Your task to perform on an android device: uninstall "Microsoft Authenticator" Image 0: 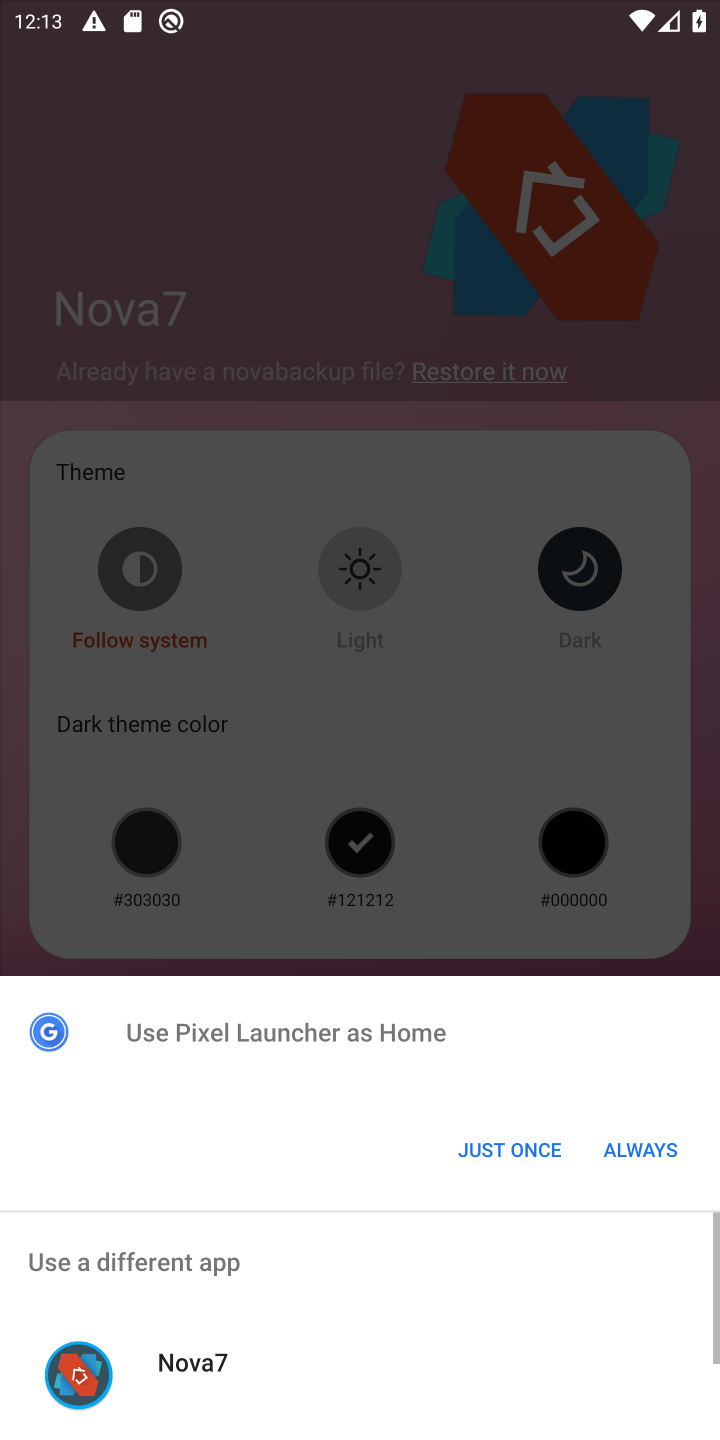
Step 0: press back button
Your task to perform on an android device: uninstall "Microsoft Authenticator" Image 1: 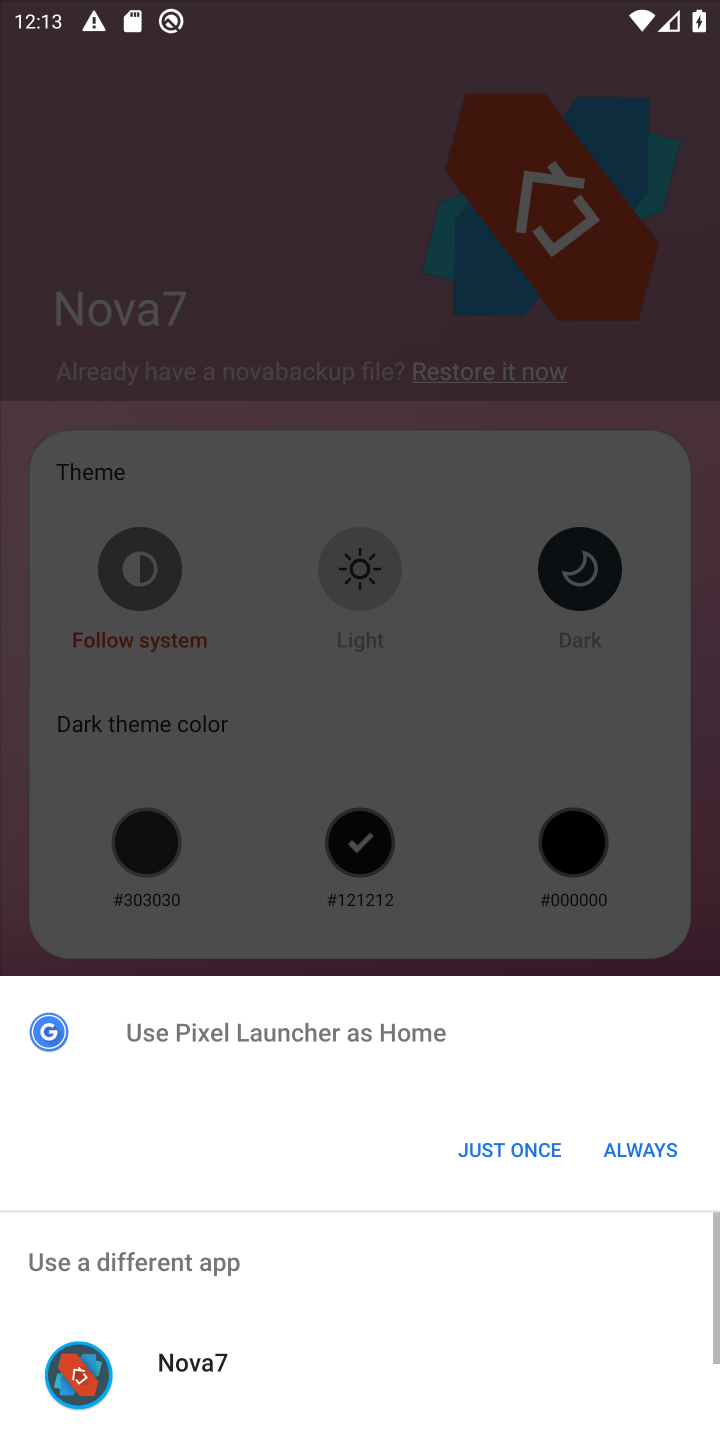
Step 1: press home button
Your task to perform on an android device: uninstall "Microsoft Authenticator" Image 2: 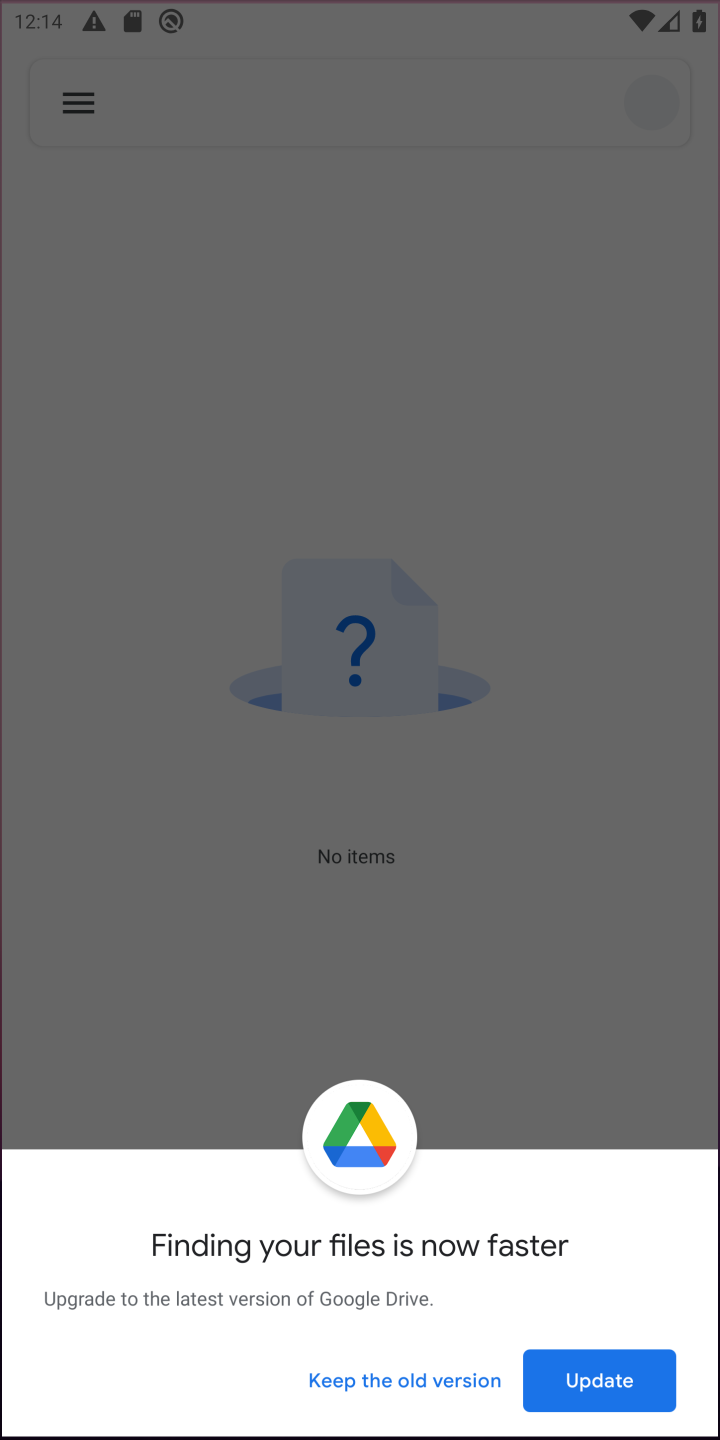
Step 2: press home button
Your task to perform on an android device: uninstall "Microsoft Authenticator" Image 3: 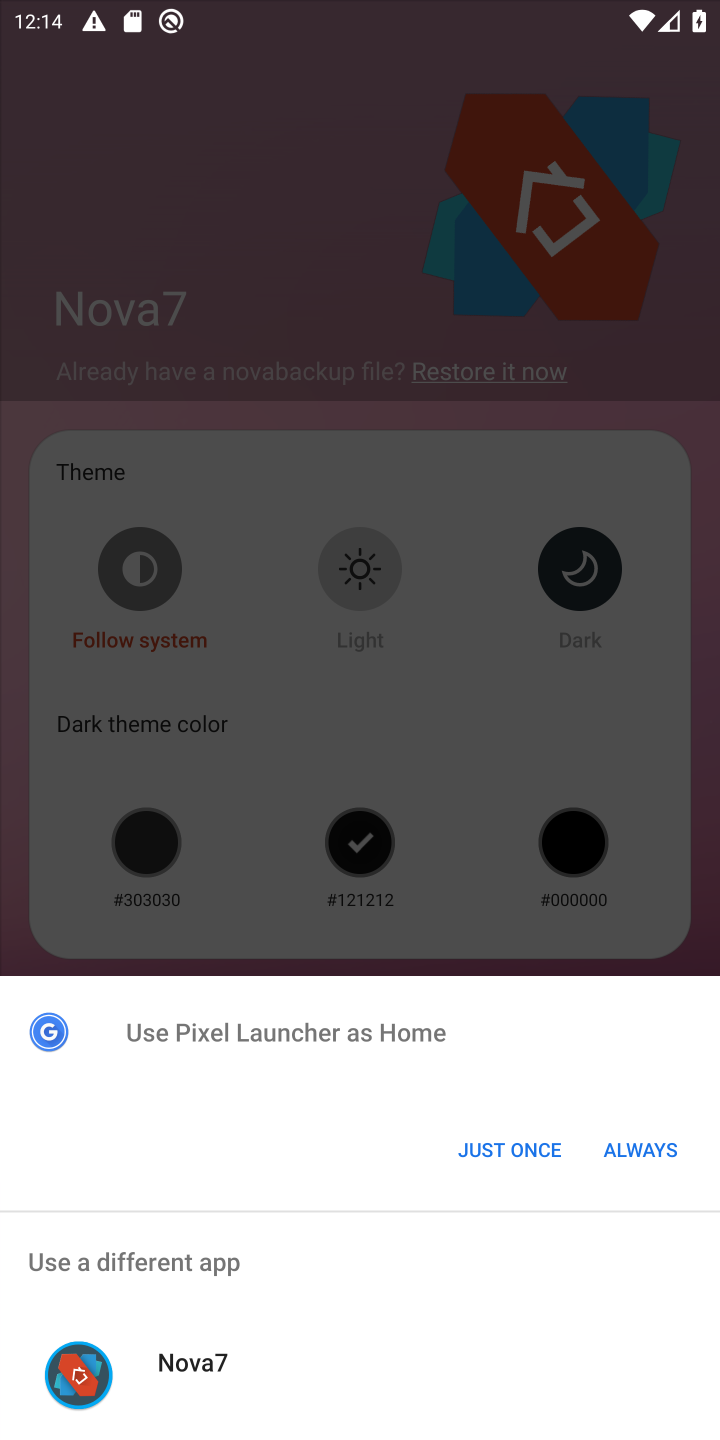
Step 3: press home button
Your task to perform on an android device: uninstall "Microsoft Authenticator" Image 4: 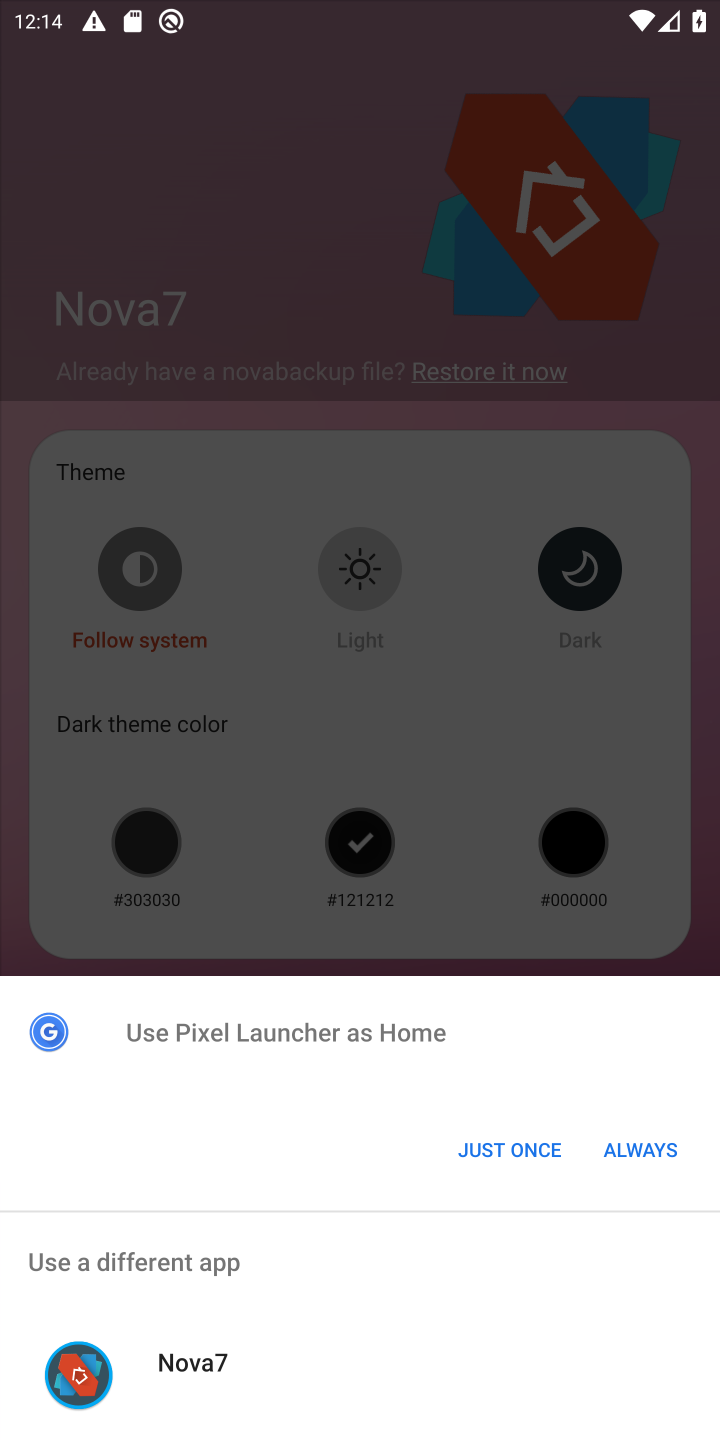
Step 4: click (517, 1138)
Your task to perform on an android device: uninstall "Microsoft Authenticator" Image 5: 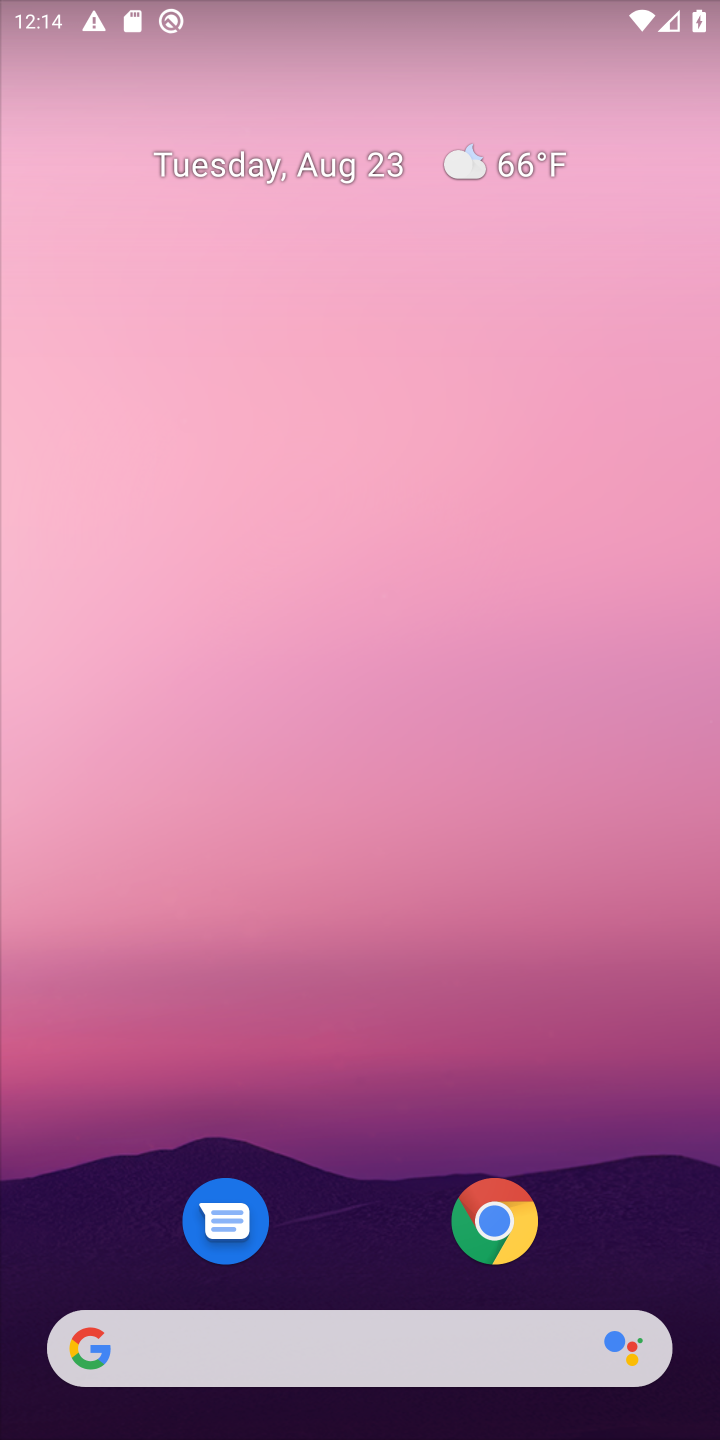
Step 5: click (644, 227)
Your task to perform on an android device: uninstall "Microsoft Authenticator" Image 6: 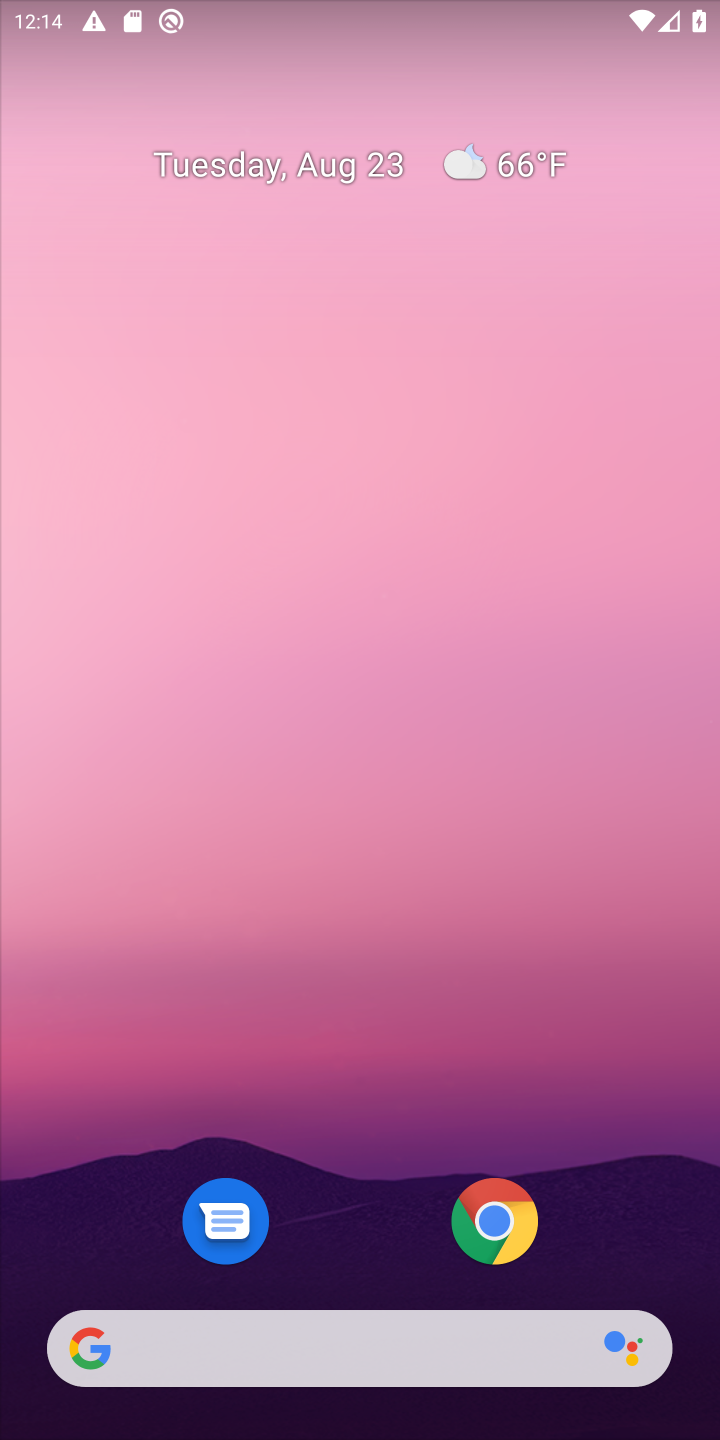
Step 6: drag from (395, 858) to (520, 94)
Your task to perform on an android device: uninstall "Microsoft Authenticator" Image 7: 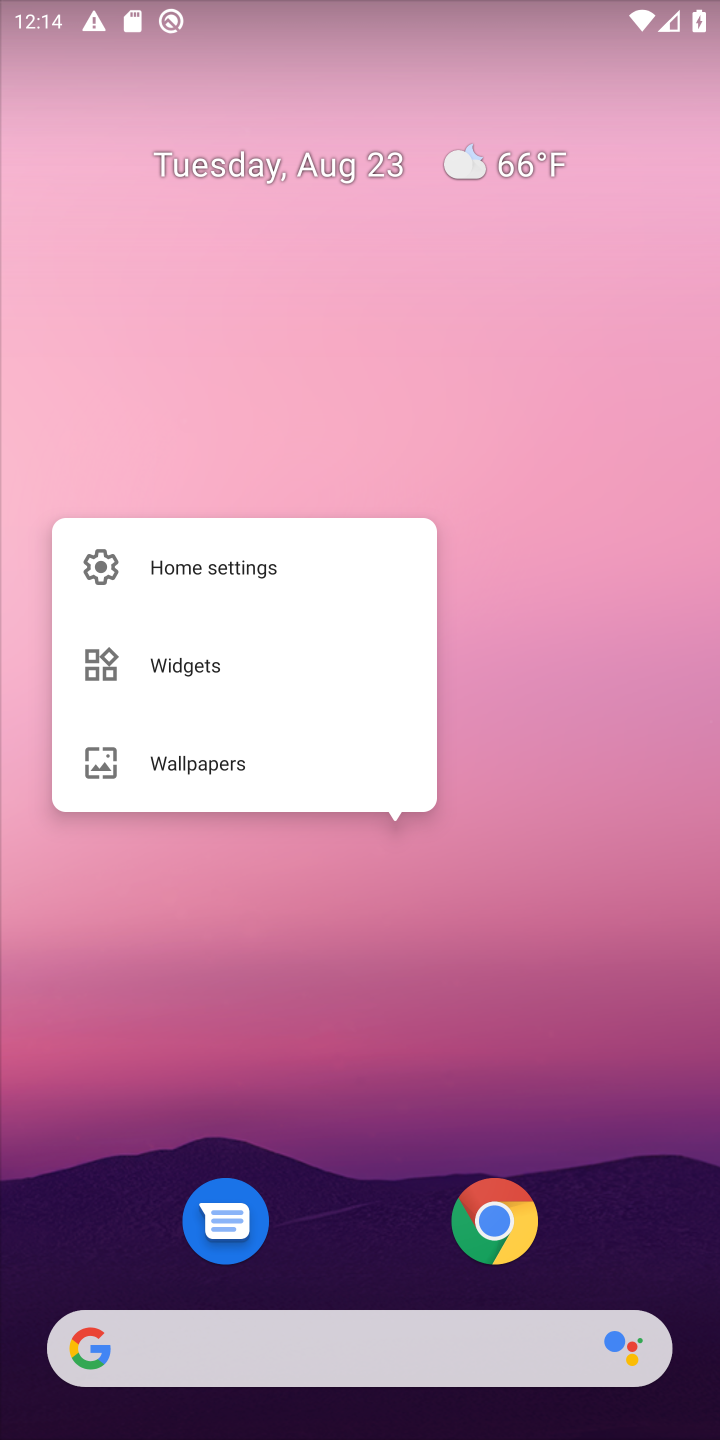
Step 7: click (474, 977)
Your task to perform on an android device: uninstall "Microsoft Authenticator" Image 8: 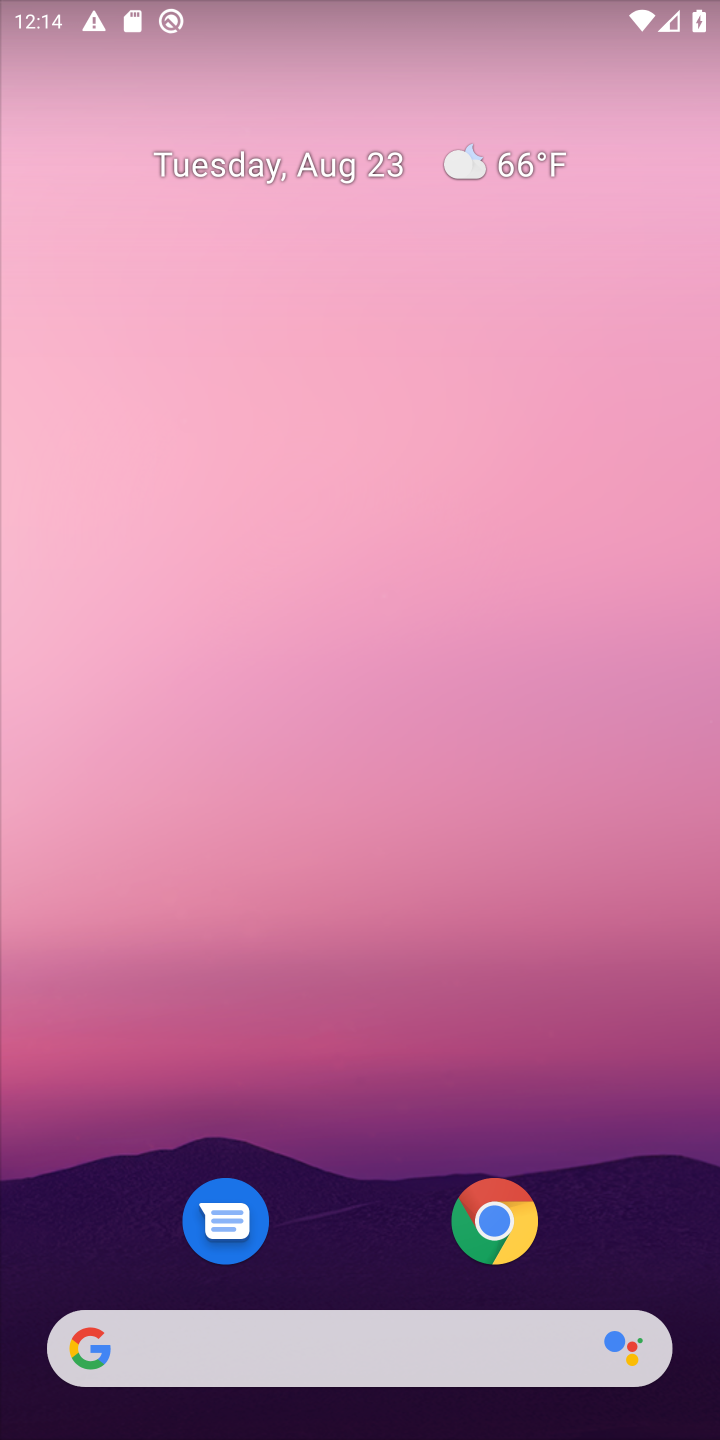
Step 8: drag from (475, 727) to (560, 45)
Your task to perform on an android device: uninstall "Microsoft Authenticator" Image 9: 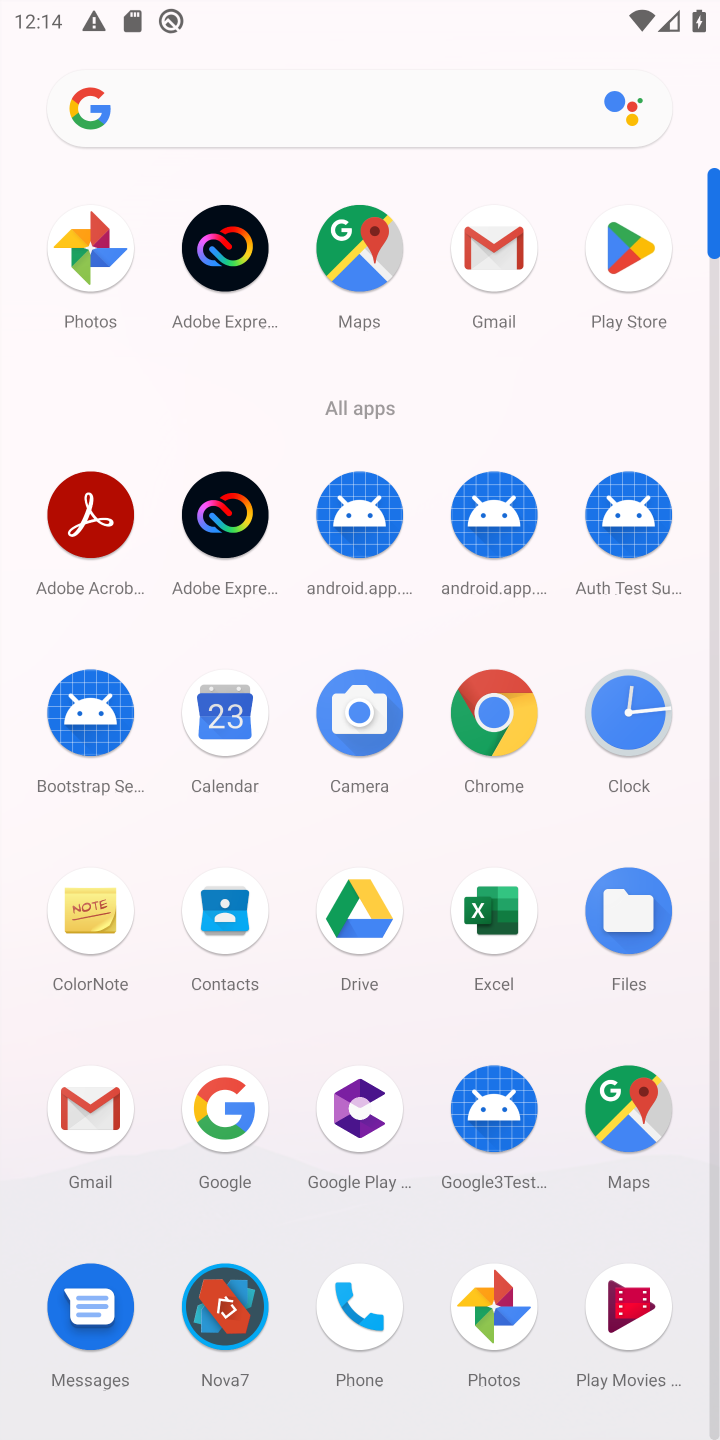
Step 9: click (632, 249)
Your task to perform on an android device: uninstall "Microsoft Authenticator" Image 10: 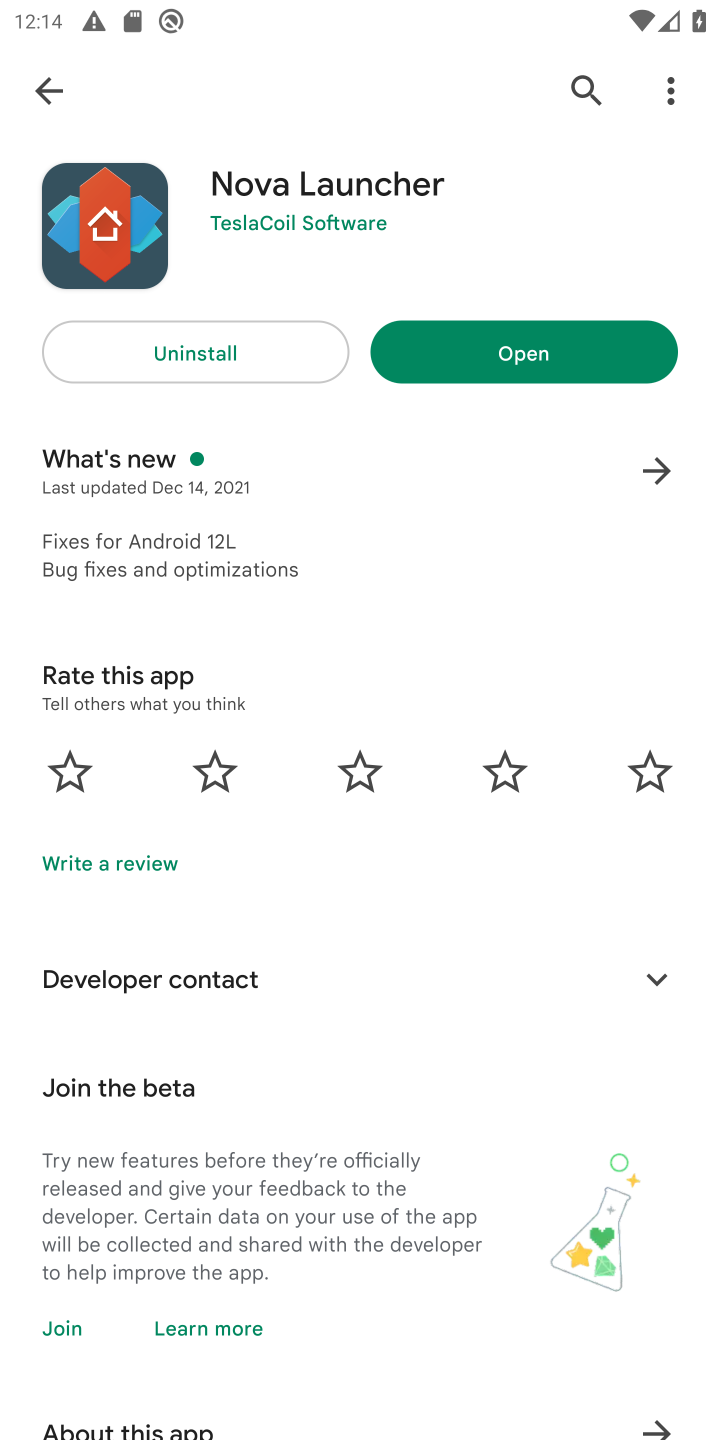
Step 10: click (572, 86)
Your task to perform on an android device: uninstall "Microsoft Authenticator" Image 11: 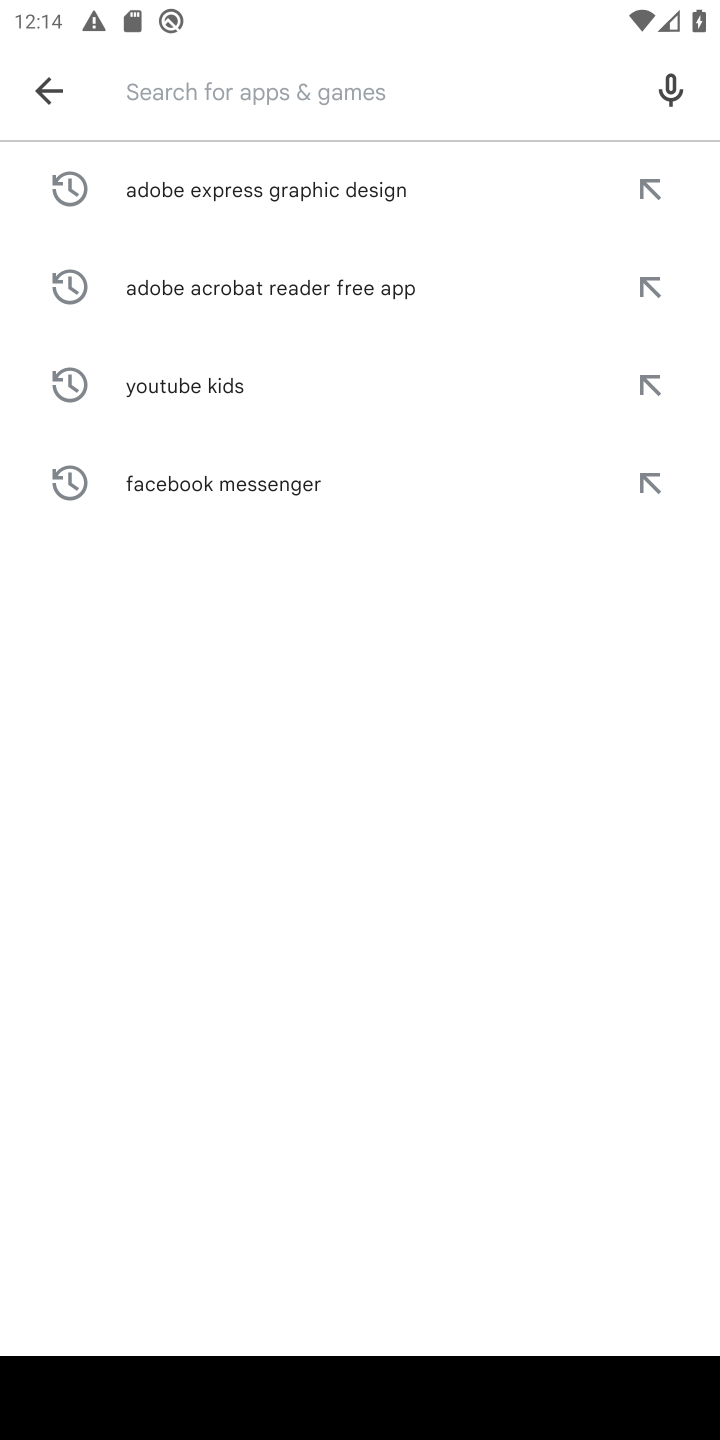
Step 11: click (173, 102)
Your task to perform on an android device: uninstall "Microsoft Authenticator" Image 12: 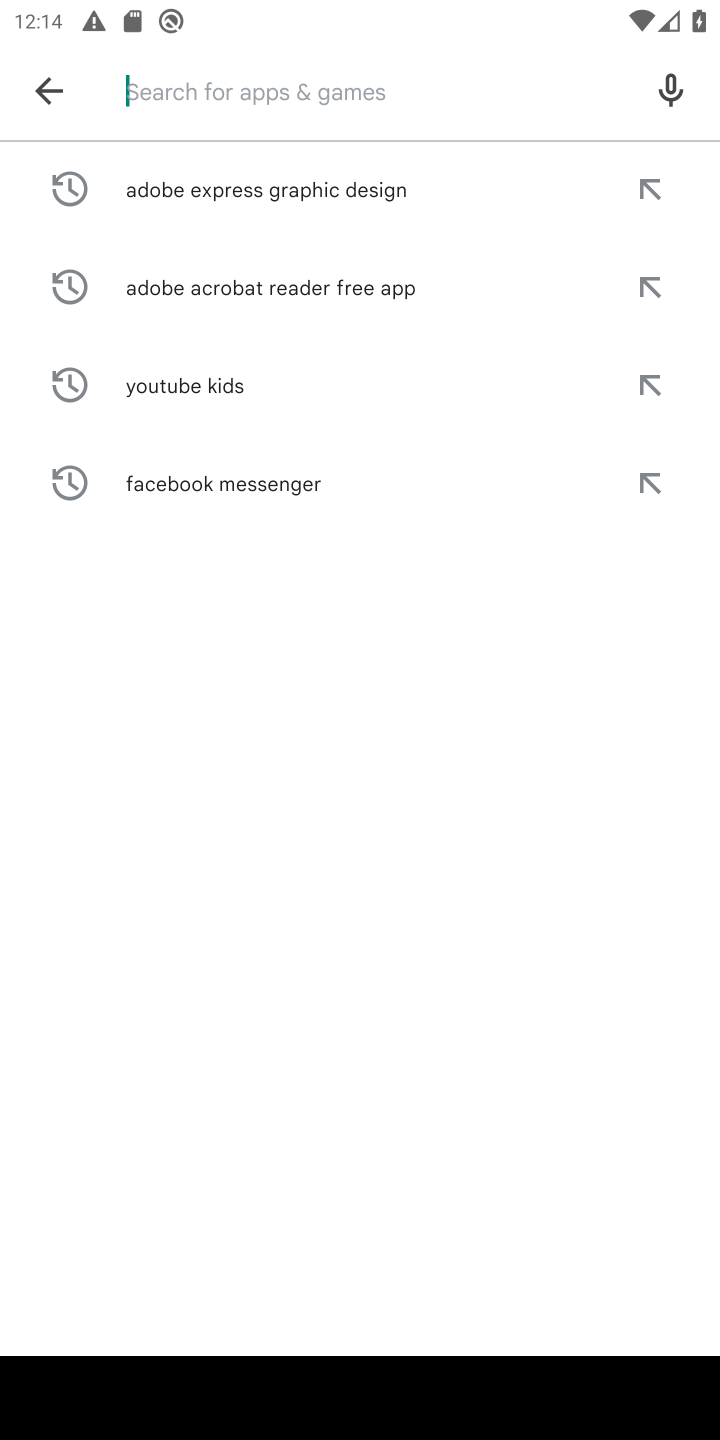
Step 12: type "Microsoft Authenticator"
Your task to perform on an android device: uninstall "Microsoft Authenticator" Image 13: 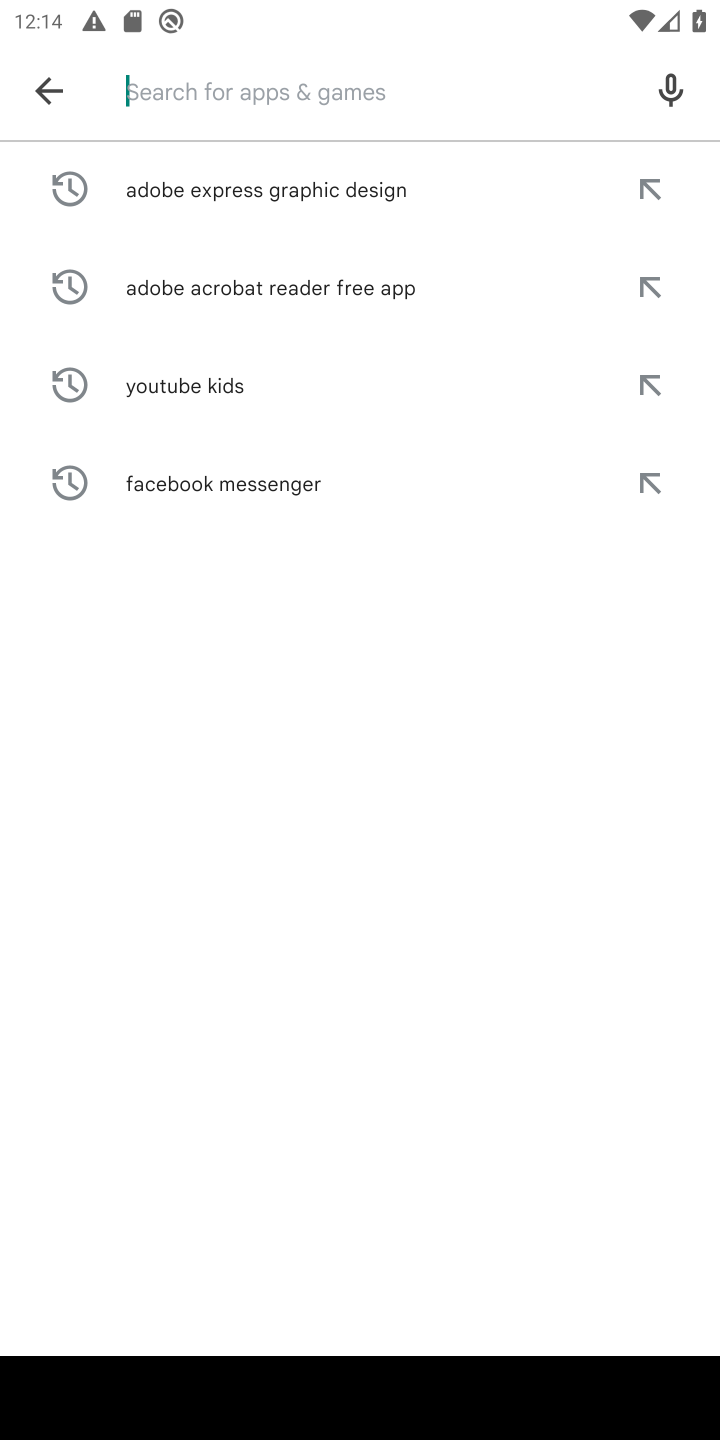
Step 13: click (324, 890)
Your task to perform on an android device: uninstall "Microsoft Authenticator" Image 14: 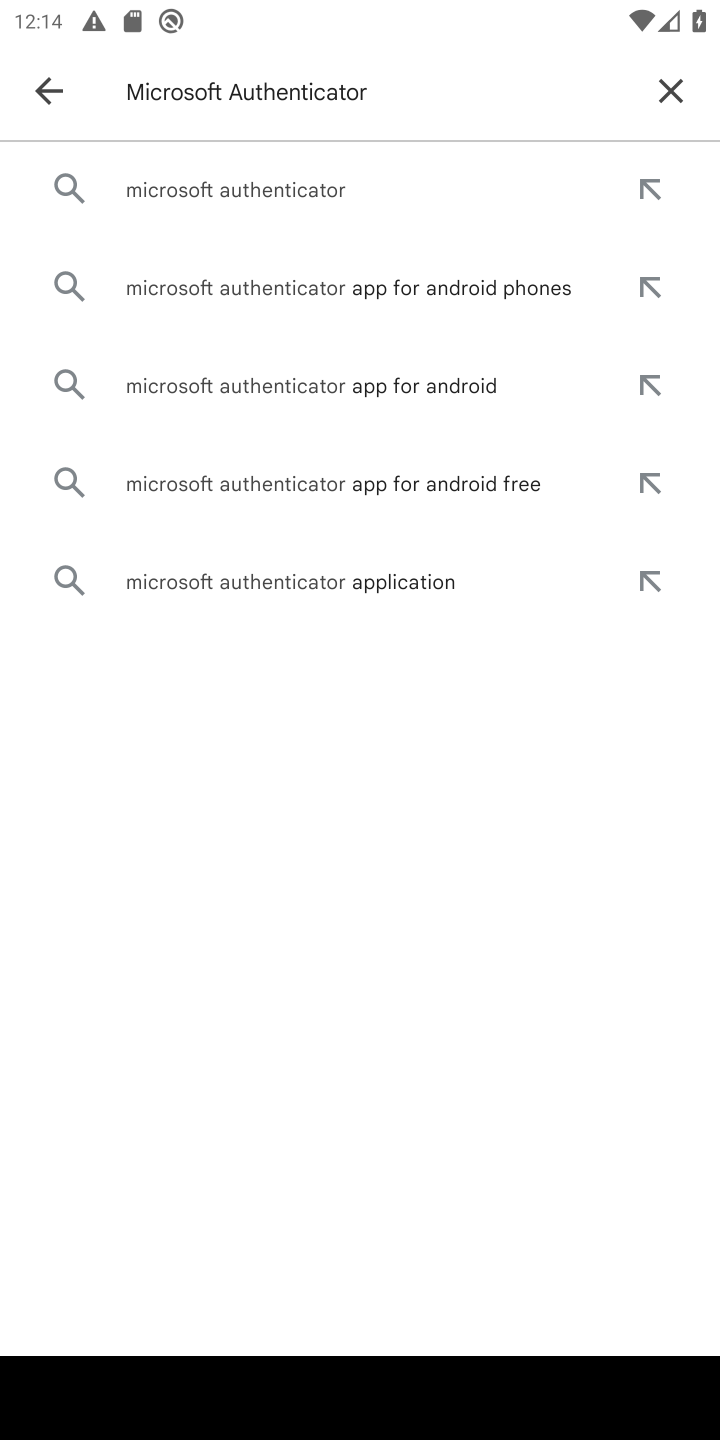
Step 14: click (251, 166)
Your task to perform on an android device: uninstall "Microsoft Authenticator" Image 15: 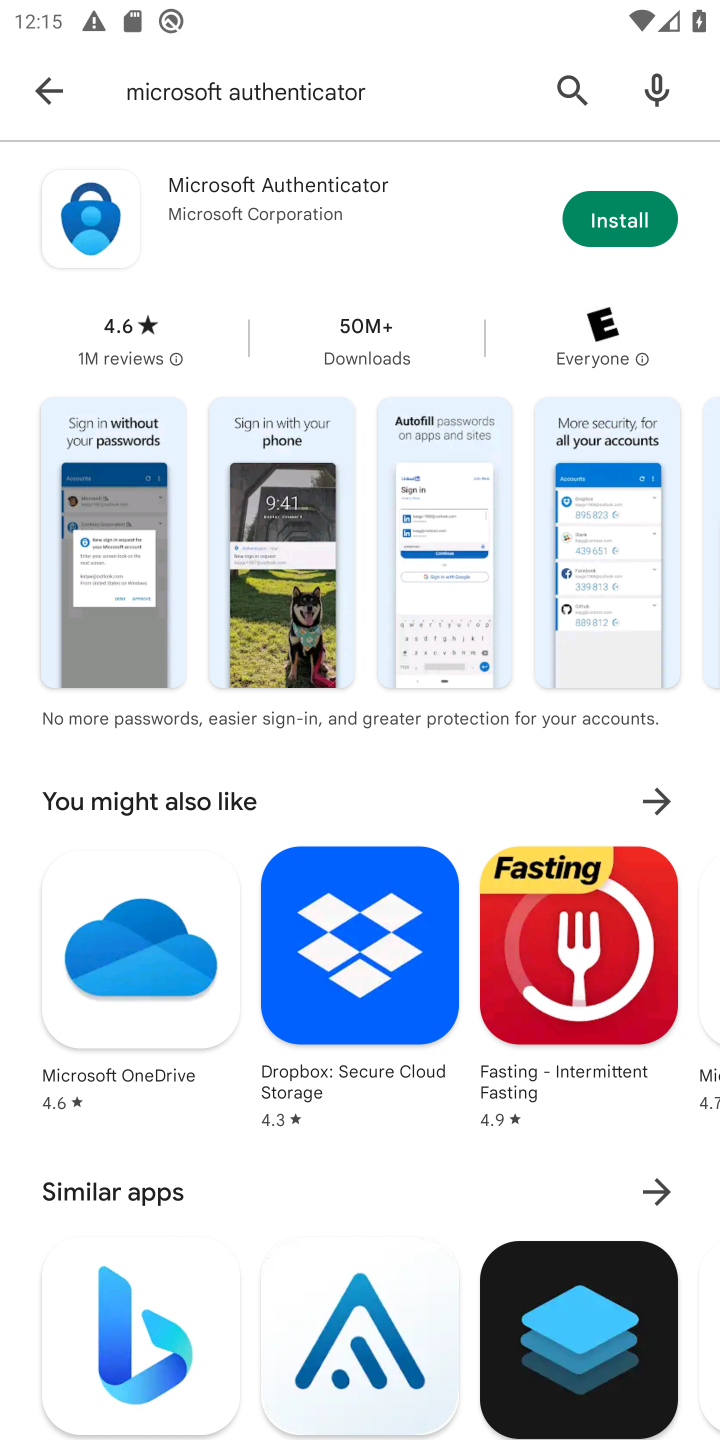
Step 15: task complete